Your task to perform on an android device: Open settings on Google Maps Image 0: 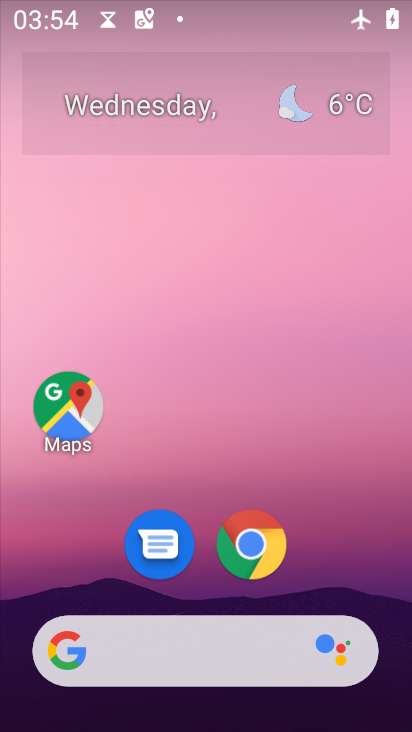
Step 0: click (89, 397)
Your task to perform on an android device: Open settings on Google Maps Image 1: 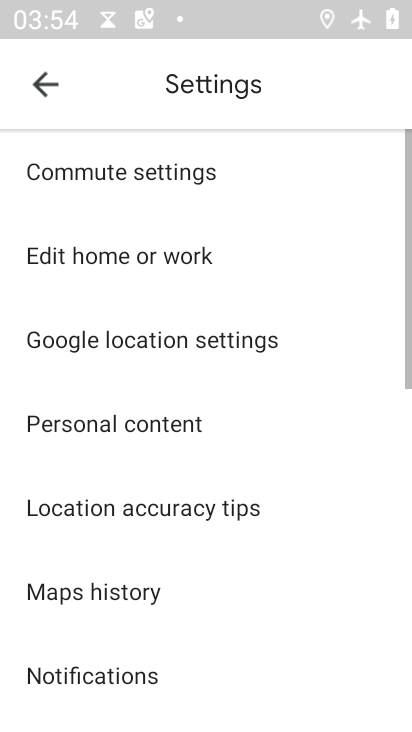
Step 1: click (55, 88)
Your task to perform on an android device: Open settings on Google Maps Image 2: 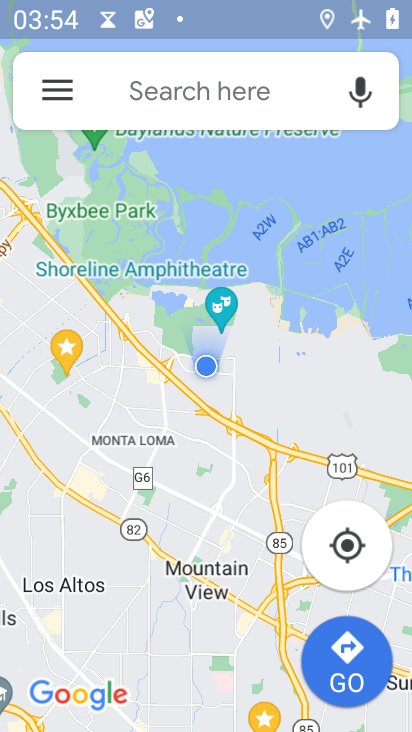
Step 2: click (55, 86)
Your task to perform on an android device: Open settings on Google Maps Image 3: 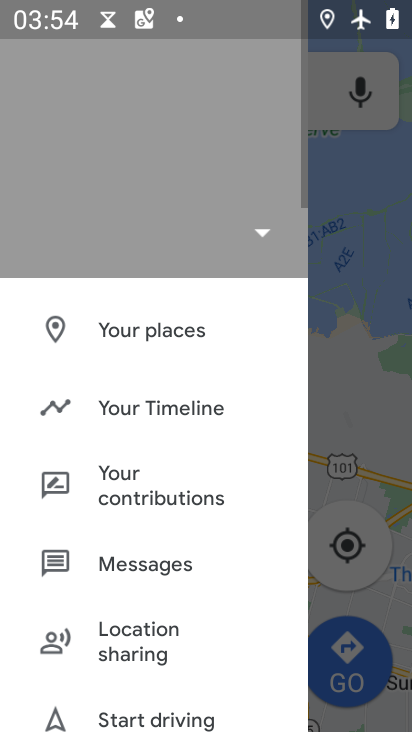
Step 3: drag from (111, 685) to (175, 237)
Your task to perform on an android device: Open settings on Google Maps Image 4: 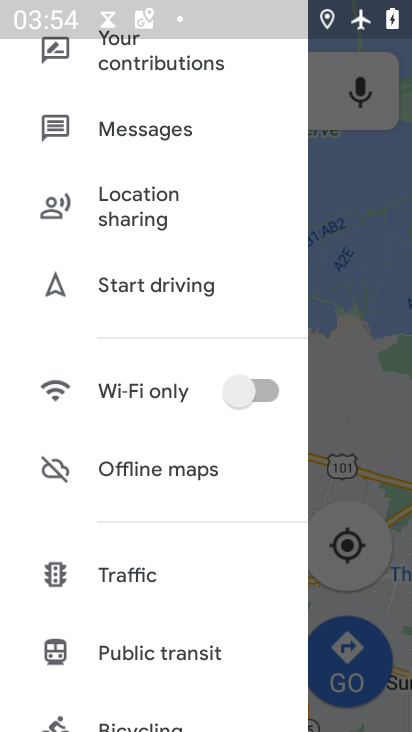
Step 4: drag from (114, 655) to (129, 327)
Your task to perform on an android device: Open settings on Google Maps Image 5: 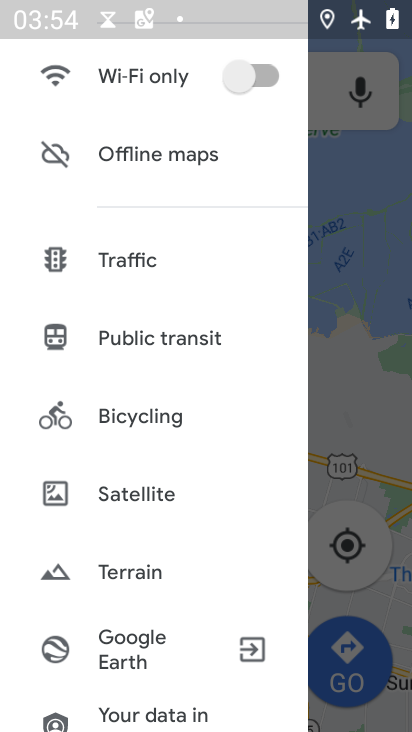
Step 5: drag from (143, 668) to (162, 363)
Your task to perform on an android device: Open settings on Google Maps Image 6: 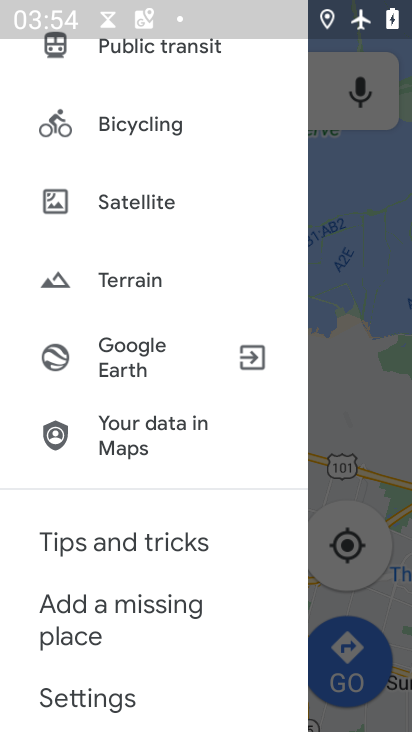
Step 6: click (100, 691)
Your task to perform on an android device: Open settings on Google Maps Image 7: 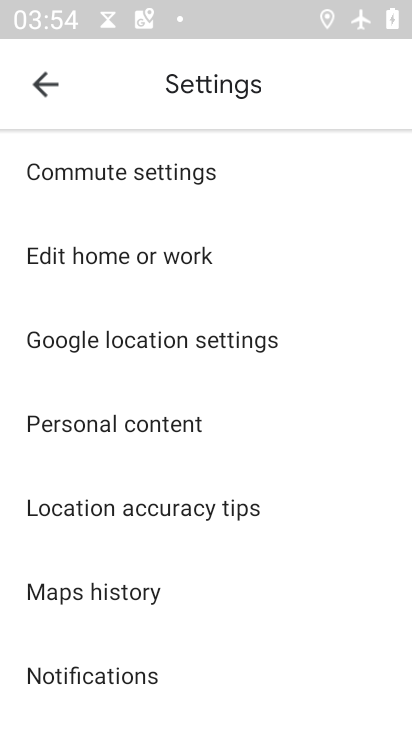
Step 7: task complete